Your task to perform on an android device: turn off notifications settings in the gmail app Image 0: 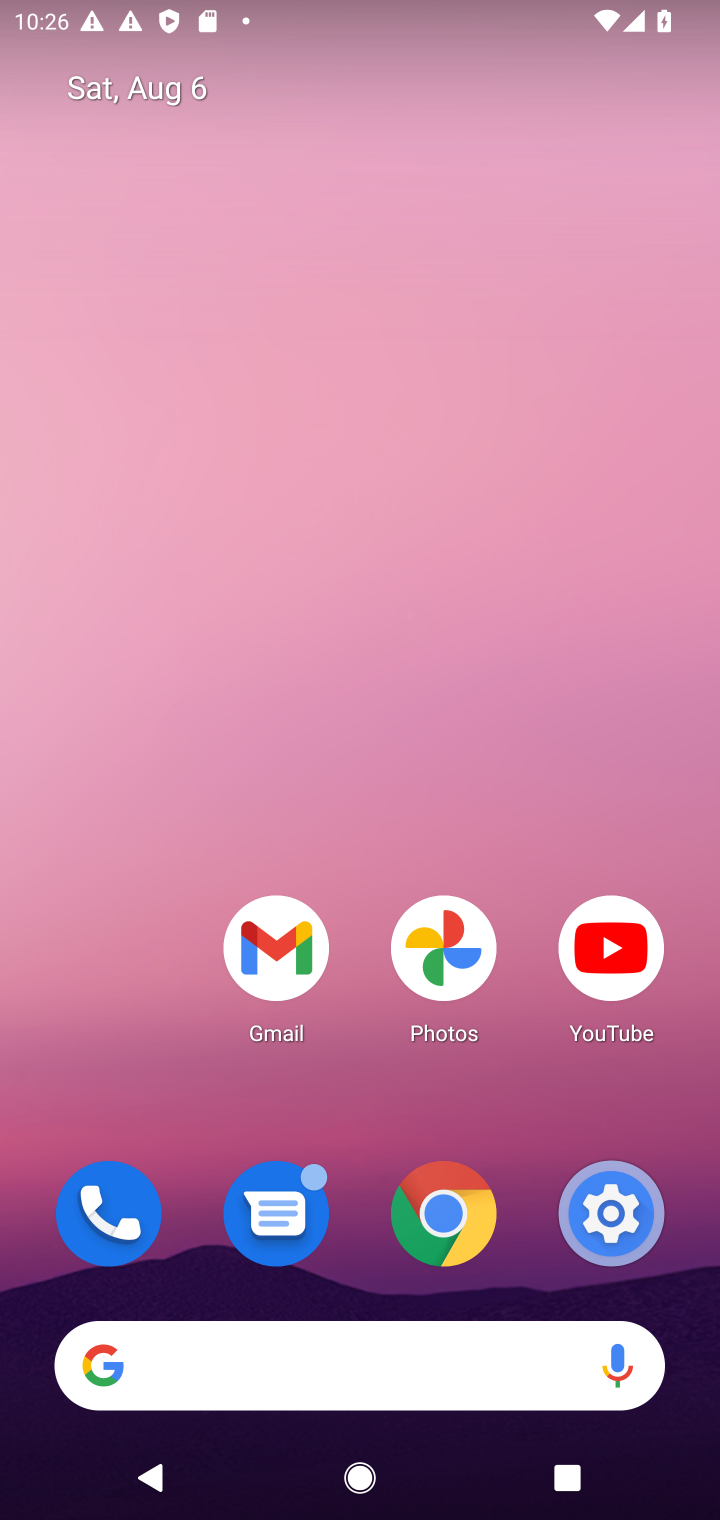
Step 0: click (425, 328)
Your task to perform on an android device: turn off notifications settings in the gmail app Image 1: 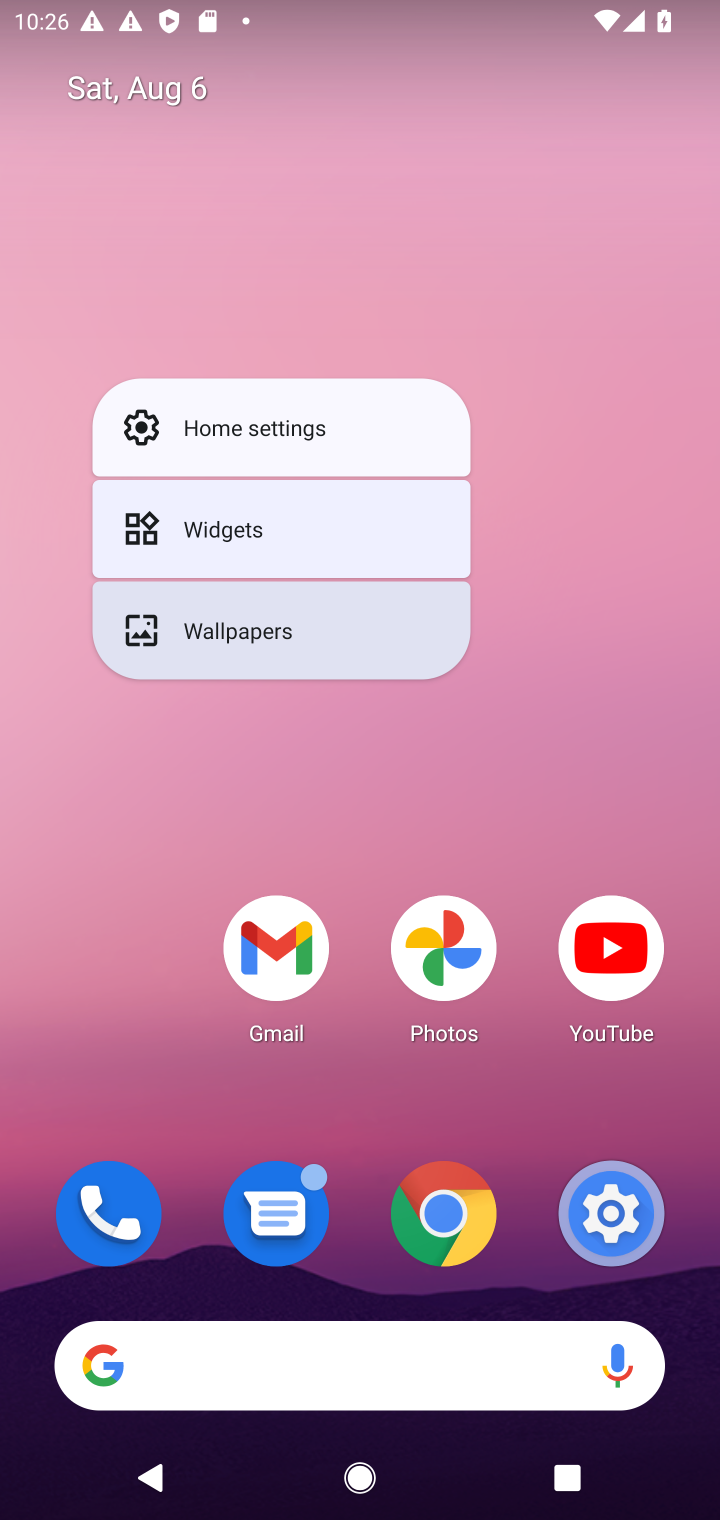
Step 1: click (333, 745)
Your task to perform on an android device: turn off notifications settings in the gmail app Image 2: 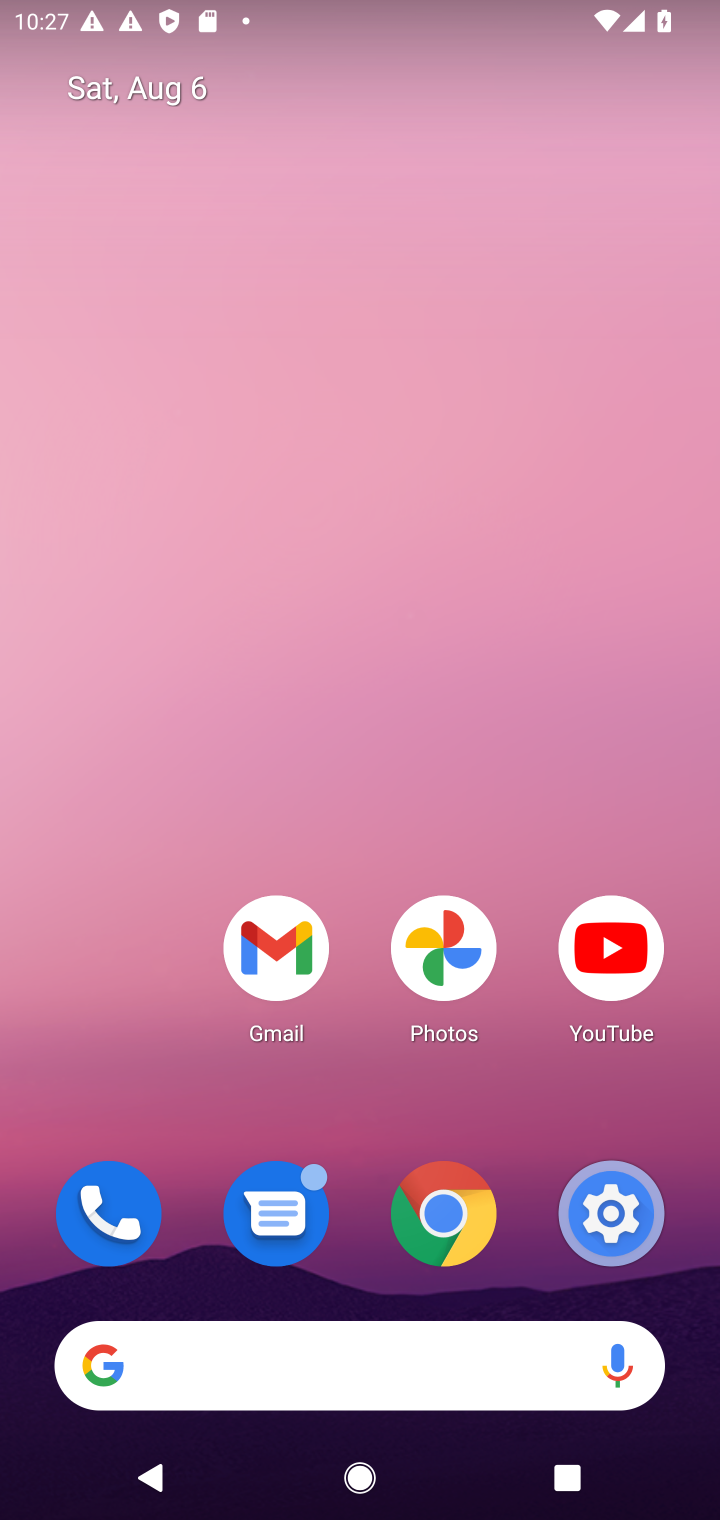
Step 2: drag from (369, 838) to (391, 243)
Your task to perform on an android device: turn off notifications settings in the gmail app Image 3: 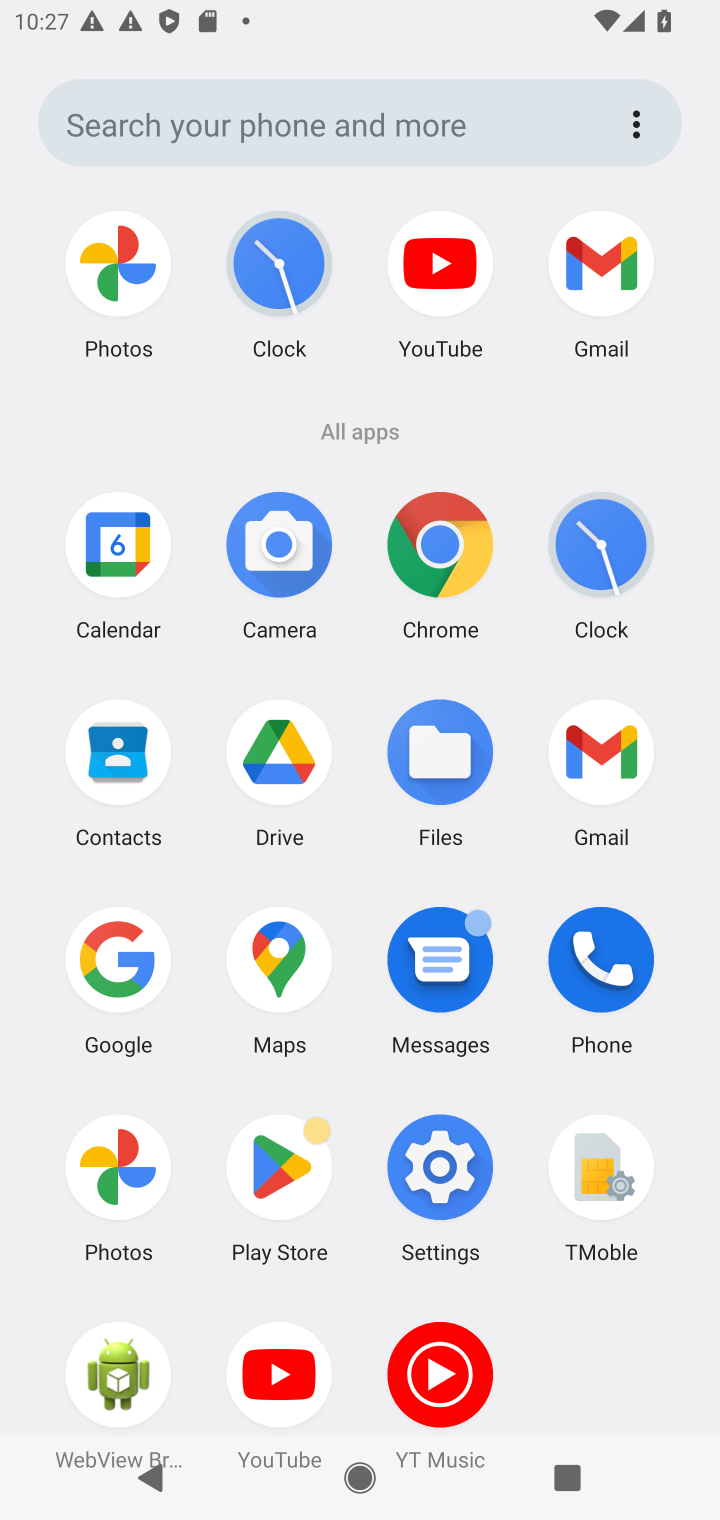
Step 3: click (450, 537)
Your task to perform on an android device: turn off notifications settings in the gmail app Image 4: 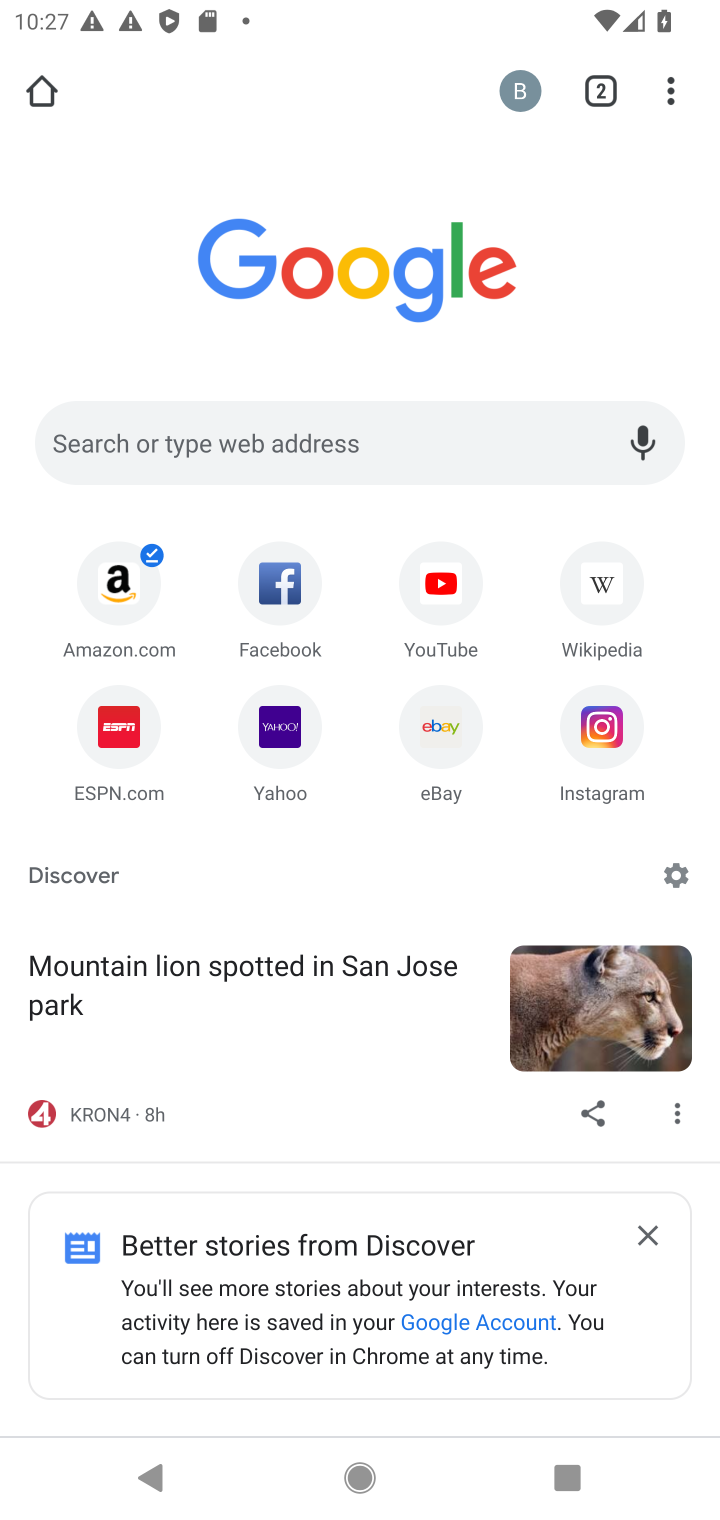
Step 4: click (612, 90)
Your task to perform on an android device: turn off notifications settings in the gmail app Image 5: 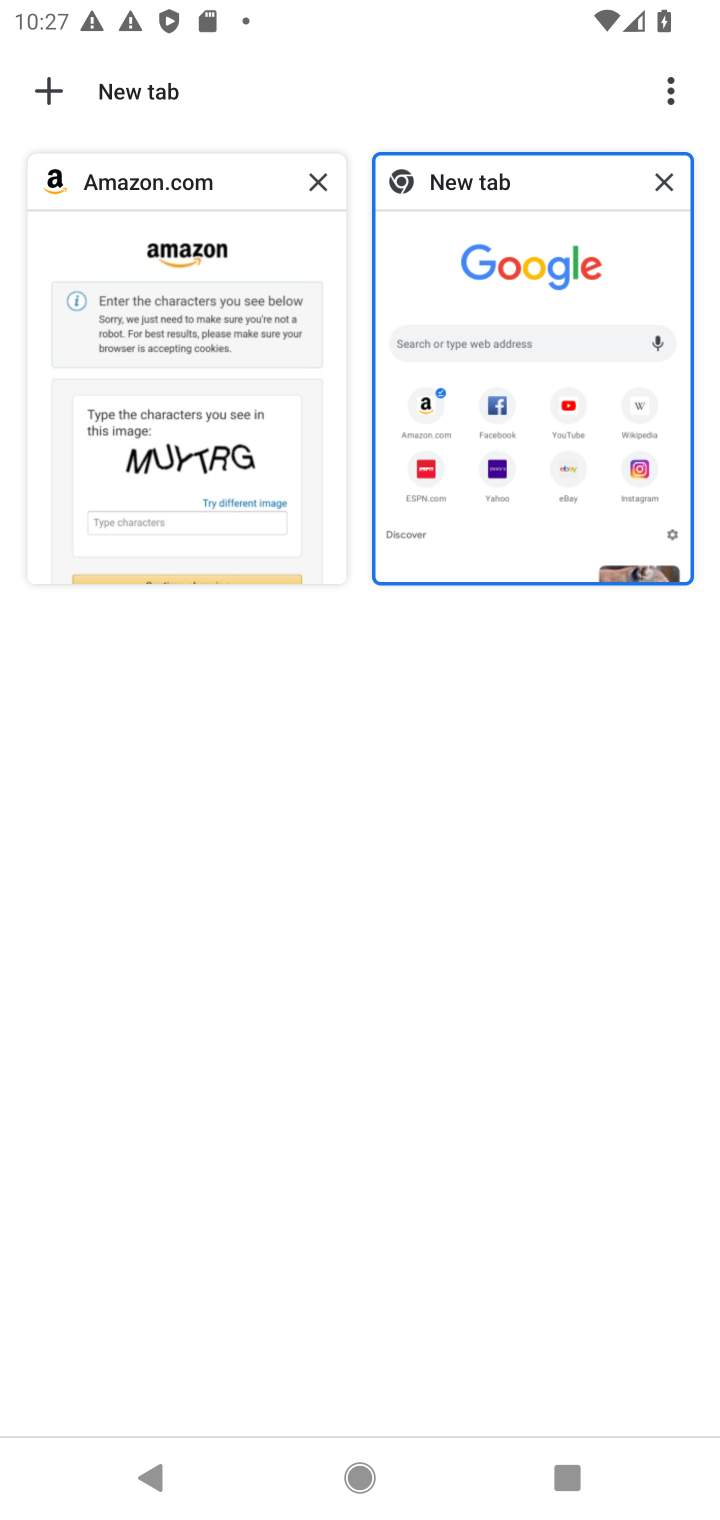
Step 5: task complete